Your task to perform on an android device: toggle show notifications on the lock screen Image 0: 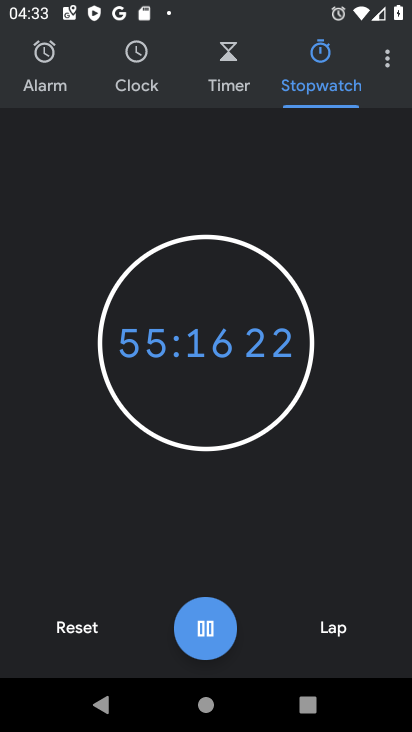
Step 0: press home button
Your task to perform on an android device: toggle show notifications on the lock screen Image 1: 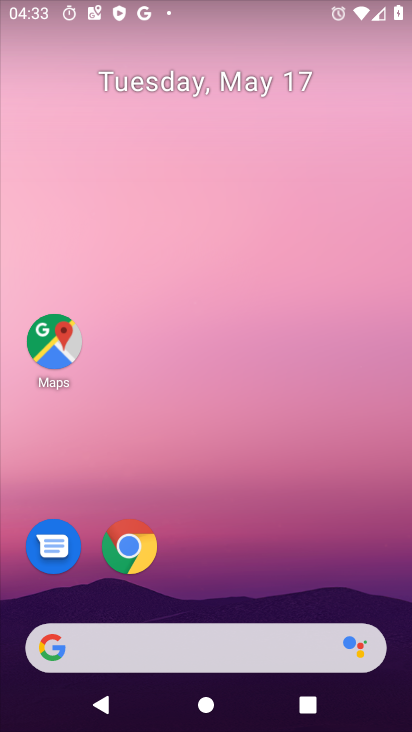
Step 1: drag from (375, 599) to (310, 332)
Your task to perform on an android device: toggle show notifications on the lock screen Image 2: 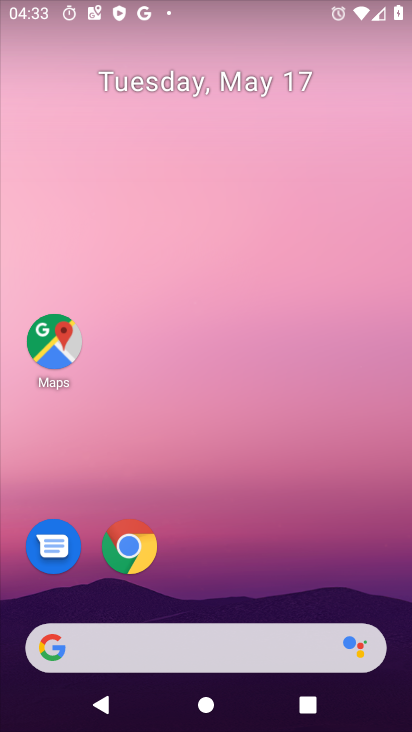
Step 2: click (352, 331)
Your task to perform on an android device: toggle show notifications on the lock screen Image 3: 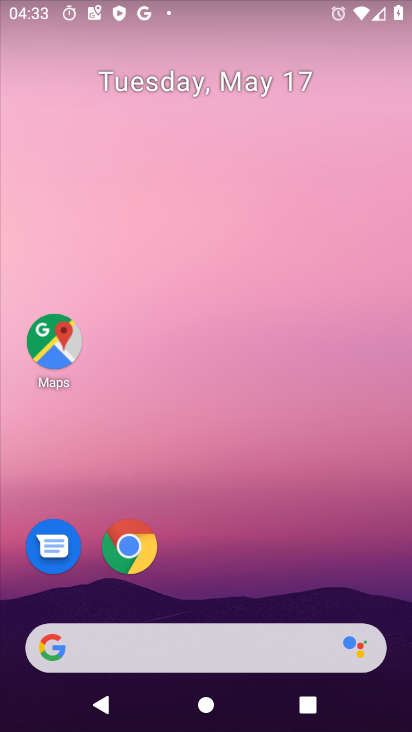
Step 3: click (369, 357)
Your task to perform on an android device: toggle show notifications on the lock screen Image 4: 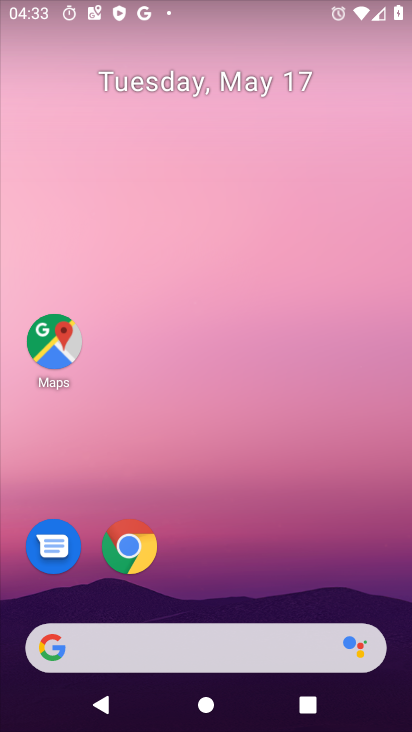
Step 4: drag from (399, 682) to (348, 316)
Your task to perform on an android device: toggle show notifications on the lock screen Image 5: 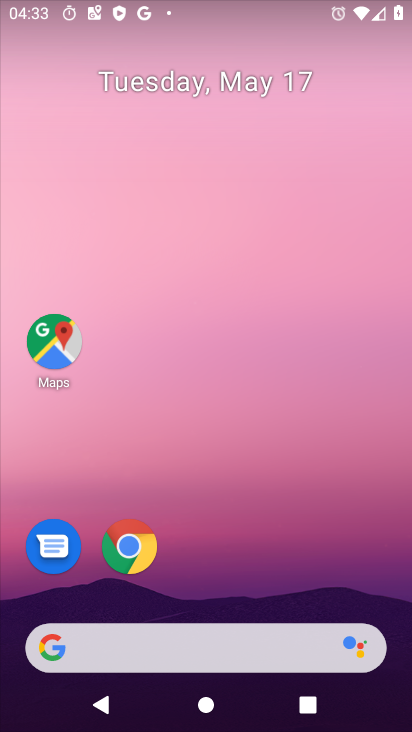
Step 5: drag from (361, 373) to (353, 311)
Your task to perform on an android device: toggle show notifications on the lock screen Image 6: 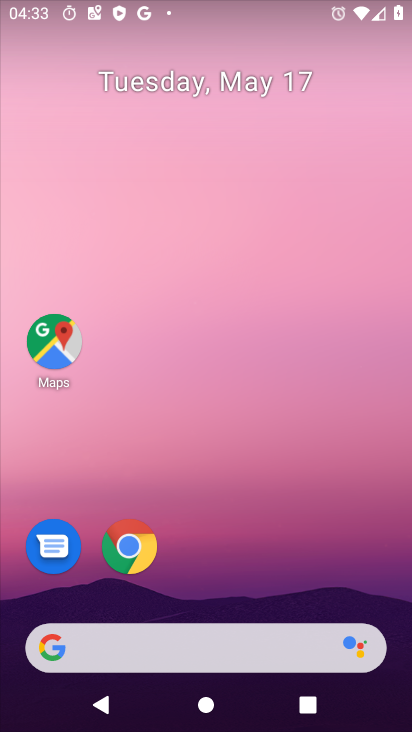
Step 6: click (356, 396)
Your task to perform on an android device: toggle show notifications on the lock screen Image 7: 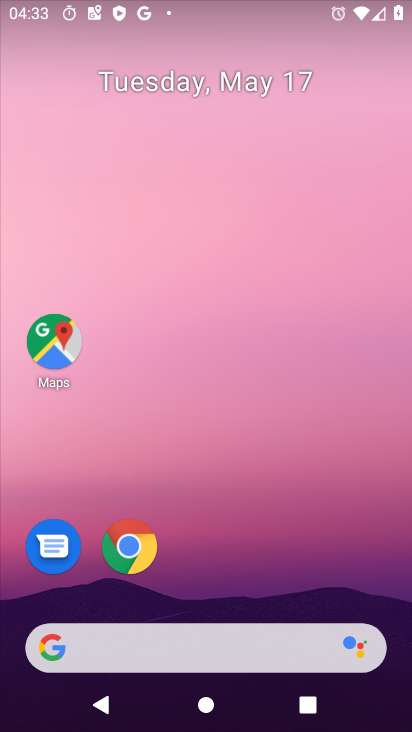
Step 7: drag from (398, 700) to (386, 228)
Your task to perform on an android device: toggle show notifications on the lock screen Image 8: 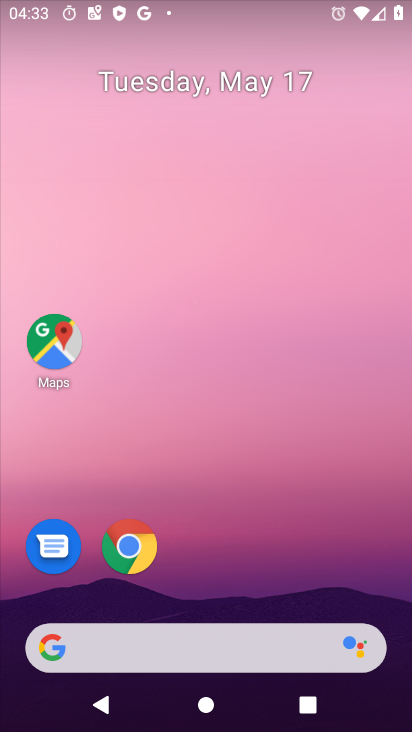
Step 8: drag from (391, 698) to (315, 372)
Your task to perform on an android device: toggle show notifications on the lock screen Image 9: 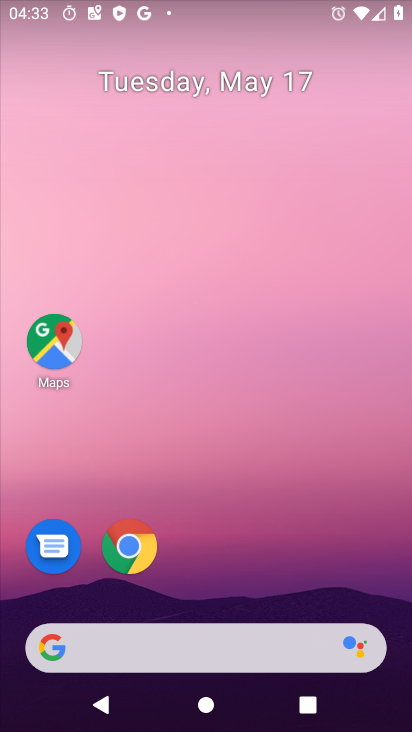
Step 9: drag from (399, 685) to (409, 316)
Your task to perform on an android device: toggle show notifications on the lock screen Image 10: 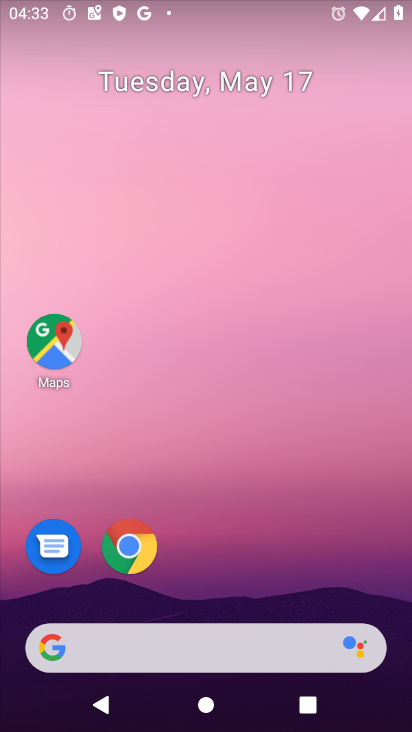
Step 10: drag from (406, 678) to (407, 267)
Your task to perform on an android device: toggle show notifications on the lock screen Image 11: 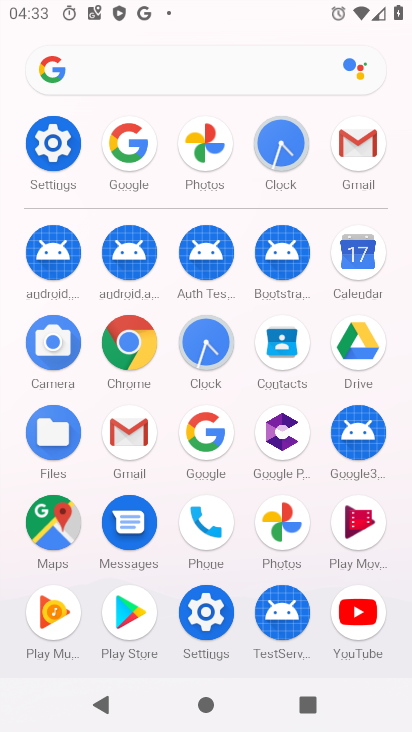
Step 11: click (214, 606)
Your task to perform on an android device: toggle show notifications on the lock screen Image 12: 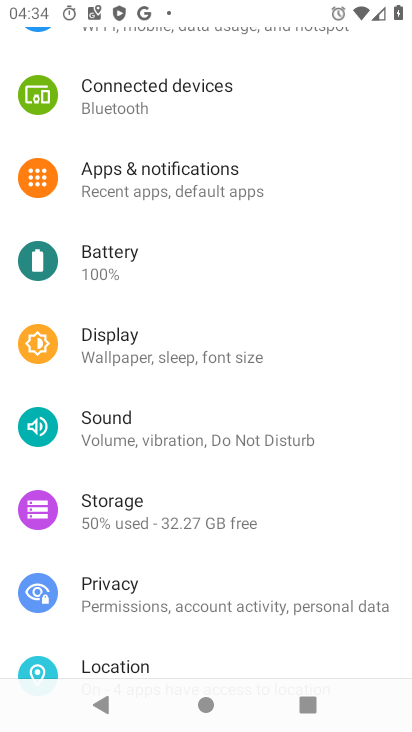
Step 12: click (153, 178)
Your task to perform on an android device: toggle show notifications on the lock screen Image 13: 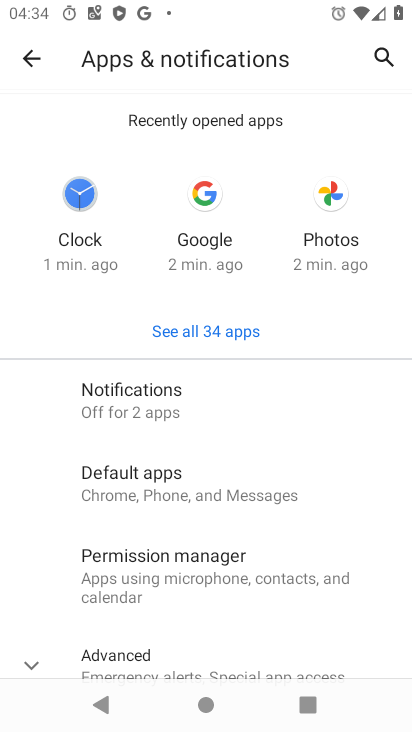
Step 13: click (114, 397)
Your task to perform on an android device: toggle show notifications on the lock screen Image 14: 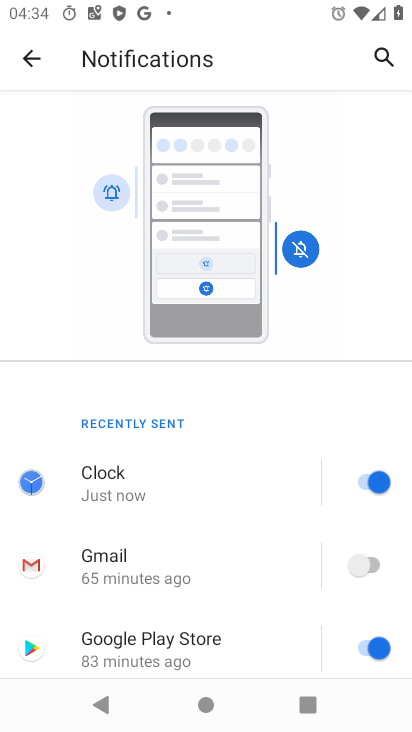
Step 14: drag from (258, 651) to (204, 350)
Your task to perform on an android device: toggle show notifications on the lock screen Image 15: 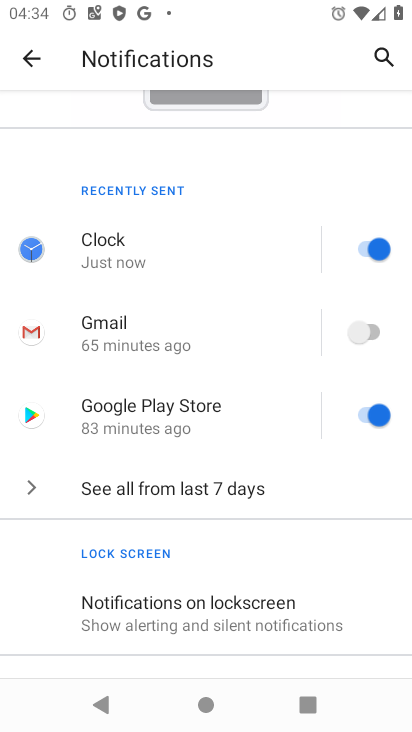
Step 15: drag from (272, 485) to (282, 335)
Your task to perform on an android device: toggle show notifications on the lock screen Image 16: 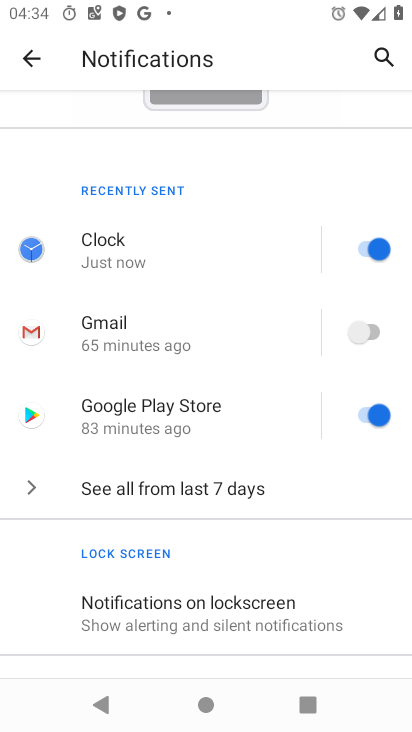
Step 16: click (153, 593)
Your task to perform on an android device: toggle show notifications on the lock screen Image 17: 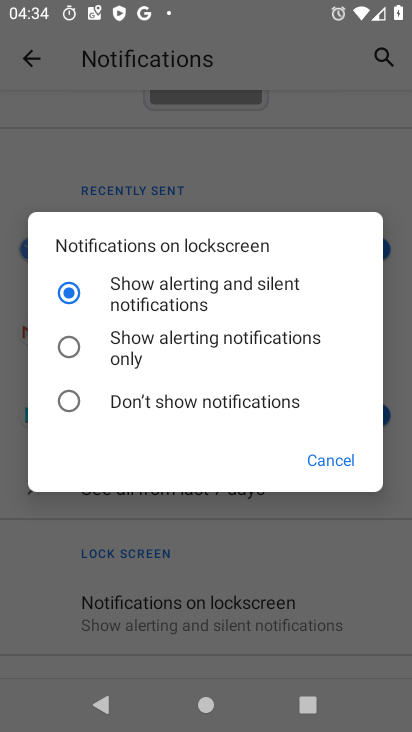
Step 17: click (56, 344)
Your task to perform on an android device: toggle show notifications on the lock screen Image 18: 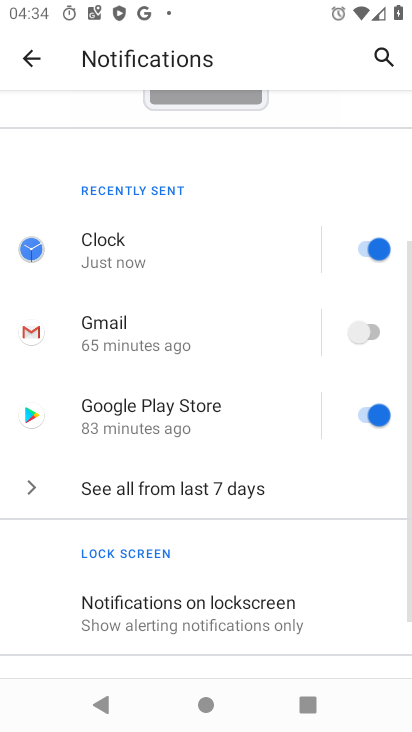
Step 18: task complete